Your task to perform on an android device: find snoozed emails in the gmail app Image 0: 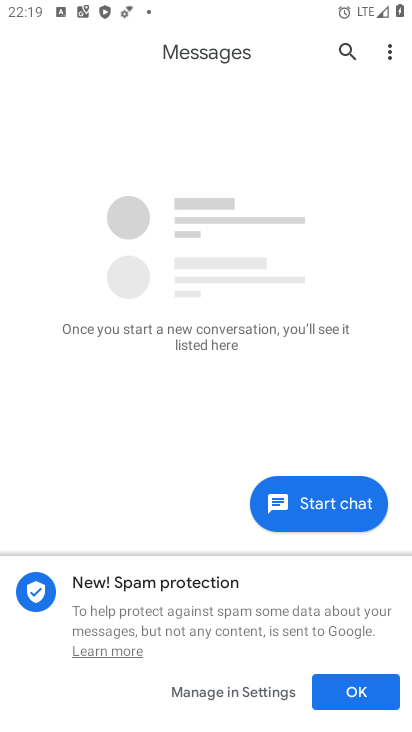
Step 0: press home button
Your task to perform on an android device: find snoozed emails in the gmail app Image 1: 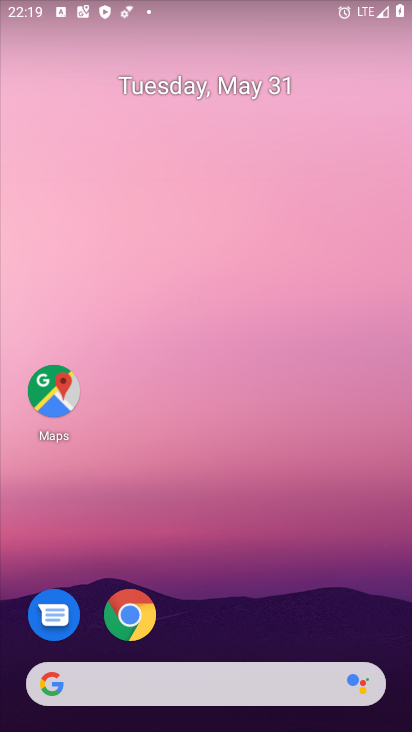
Step 1: drag from (346, 609) to (298, 87)
Your task to perform on an android device: find snoozed emails in the gmail app Image 2: 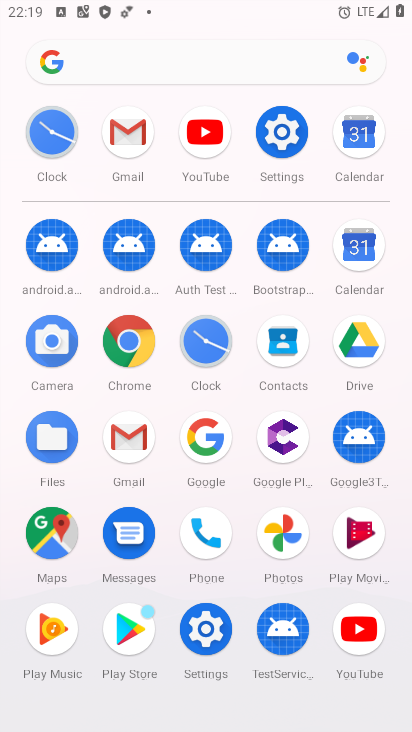
Step 2: click (127, 441)
Your task to perform on an android device: find snoozed emails in the gmail app Image 3: 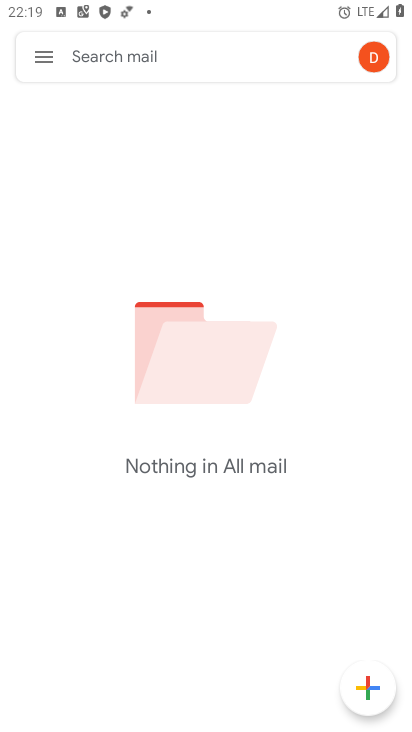
Step 3: click (44, 56)
Your task to perform on an android device: find snoozed emails in the gmail app Image 4: 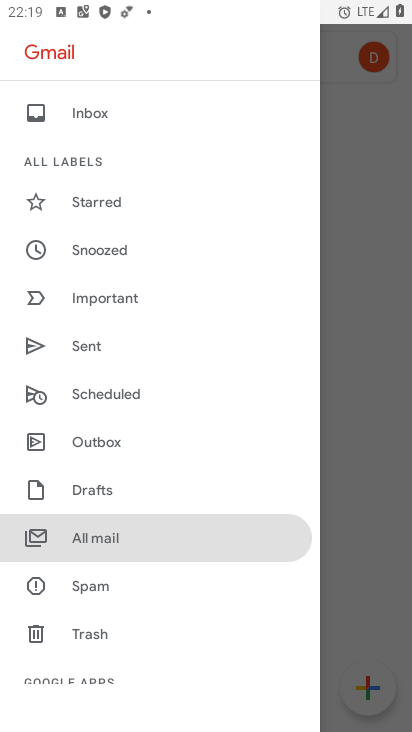
Step 4: click (112, 244)
Your task to perform on an android device: find snoozed emails in the gmail app Image 5: 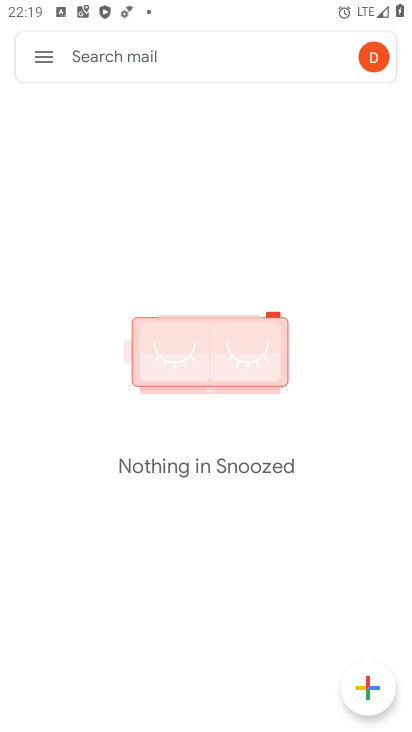
Step 5: task complete